Your task to perform on an android device: search for starred emails in the gmail app Image 0: 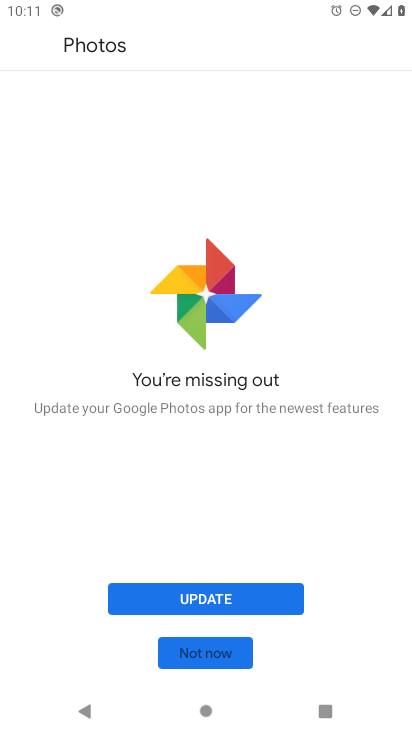
Step 0: press home button
Your task to perform on an android device: search for starred emails in the gmail app Image 1: 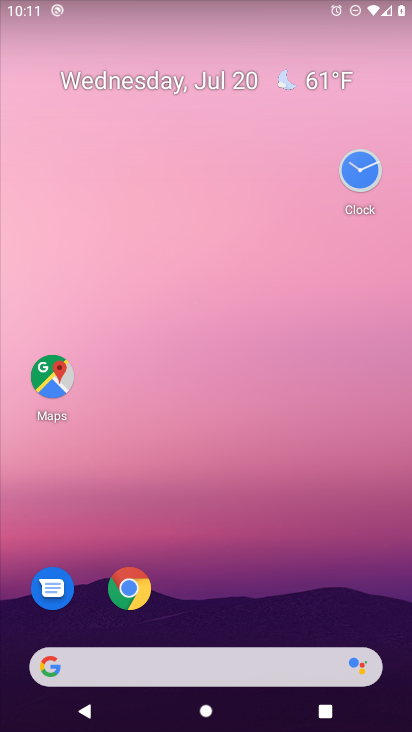
Step 1: drag from (31, 711) to (295, 13)
Your task to perform on an android device: search for starred emails in the gmail app Image 2: 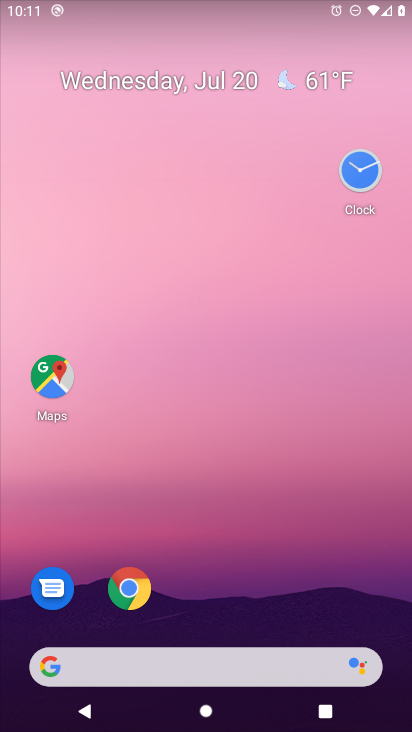
Step 2: drag from (39, 686) to (296, 96)
Your task to perform on an android device: search for starred emails in the gmail app Image 3: 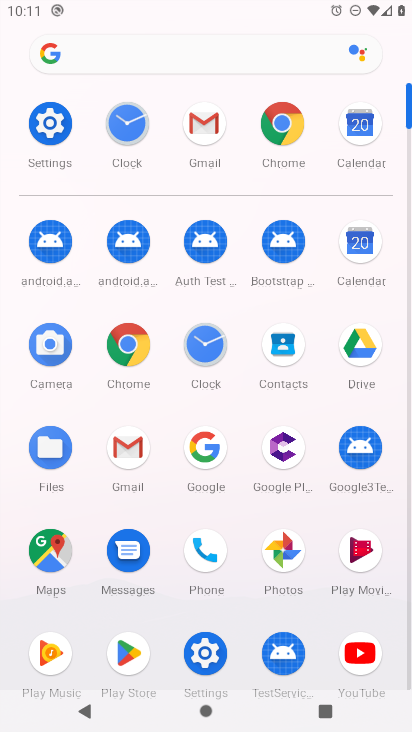
Step 3: click (137, 455)
Your task to perform on an android device: search for starred emails in the gmail app Image 4: 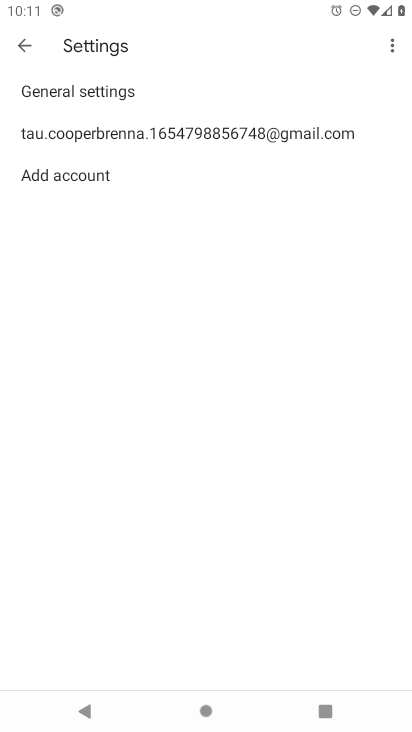
Step 4: click (34, 48)
Your task to perform on an android device: search for starred emails in the gmail app Image 5: 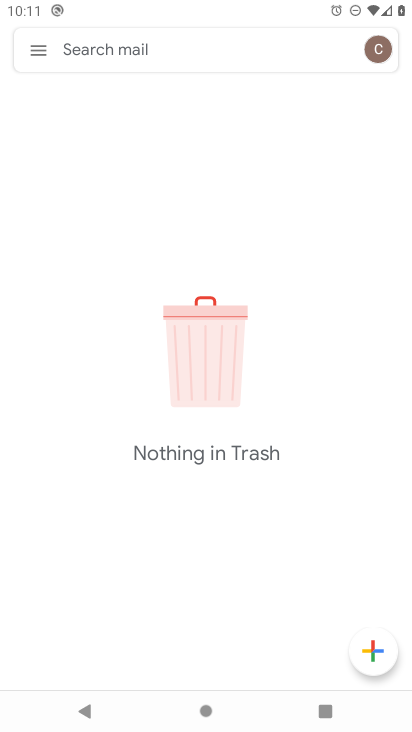
Step 5: click (37, 54)
Your task to perform on an android device: search for starred emails in the gmail app Image 6: 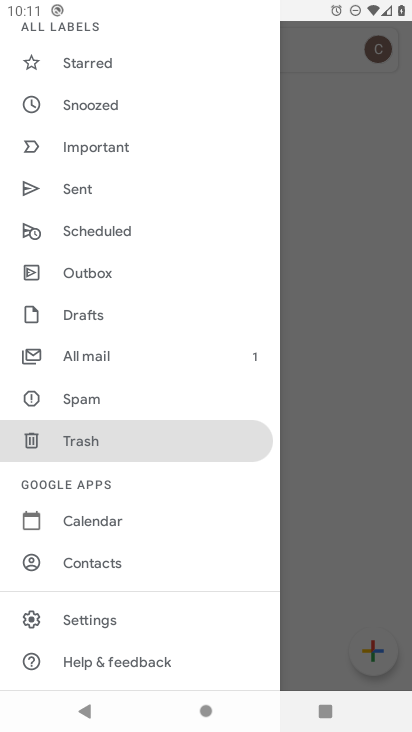
Step 6: click (73, 63)
Your task to perform on an android device: search for starred emails in the gmail app Image 7: 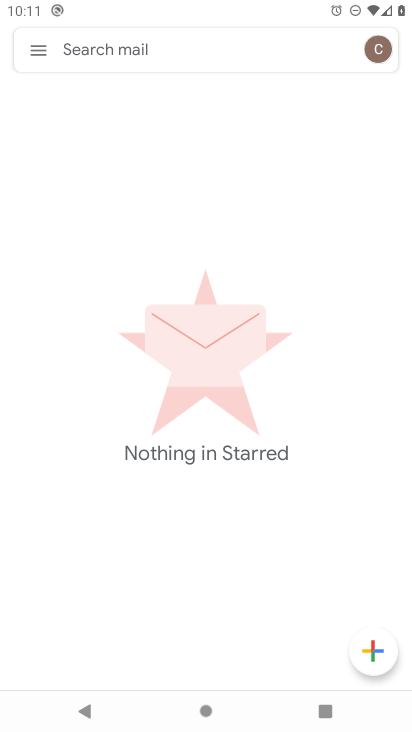
Step 7: task complete